Your task to perform on an android device: Open Reddit.com Image 0: 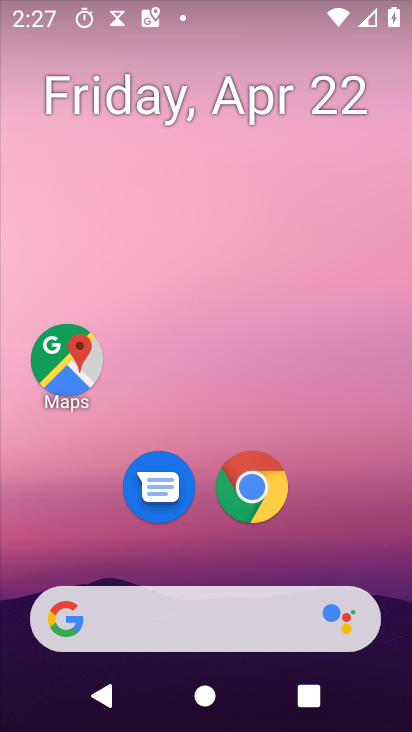
Step 0: drag from (130, 648) to (305, 109)
Your task to perform on an android device: Open Reddit.com Image 1: 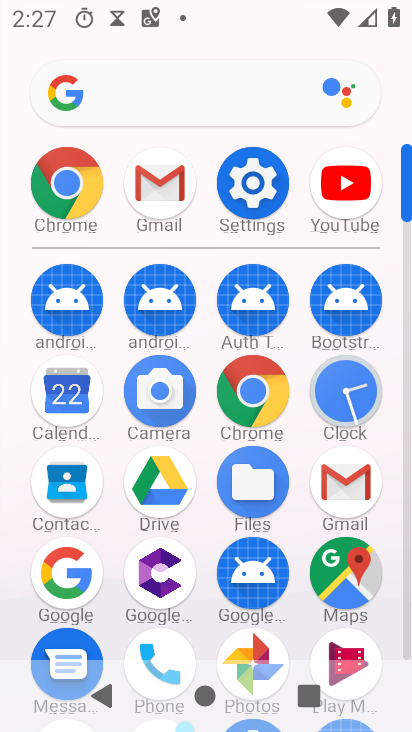
Step 1: click (73, 198)
Your task to perform on an android device: Open Reddit.com Image 2: 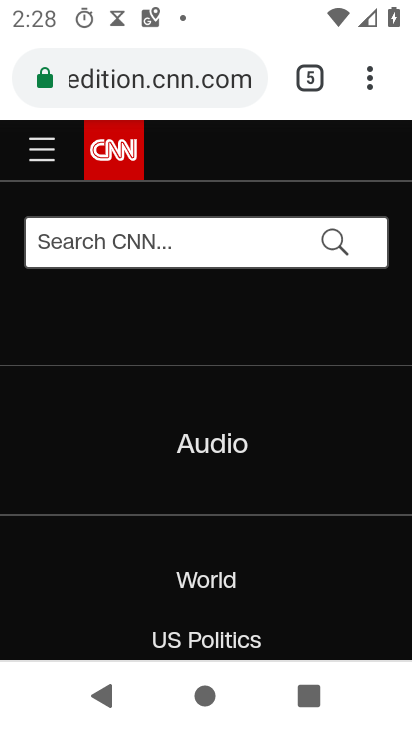
Step 2: drag from (371, 84) to (99, 151)
Your task to perform on an android device: Open Reddit.com Image 3: 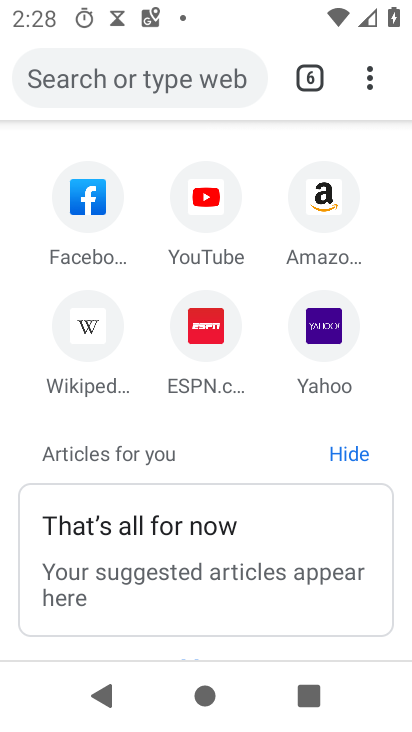
Step 3: click (144, 73)
Your task to perform on an android device: Open Reddit.com Image 4: 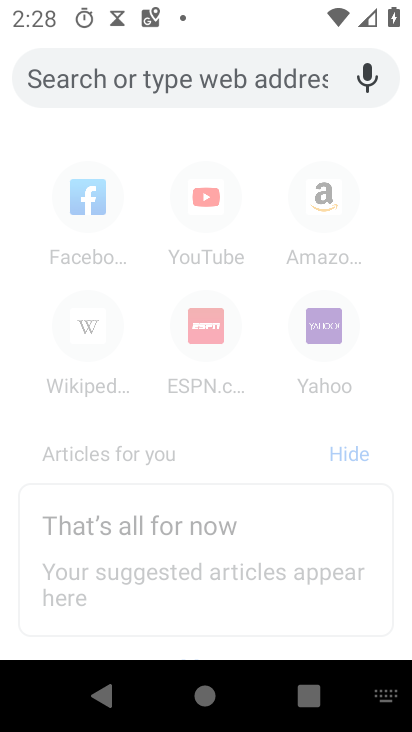
Step 4: type "reddit.com"
Your task to perform on an android device: Open Reddit.com Image 5: 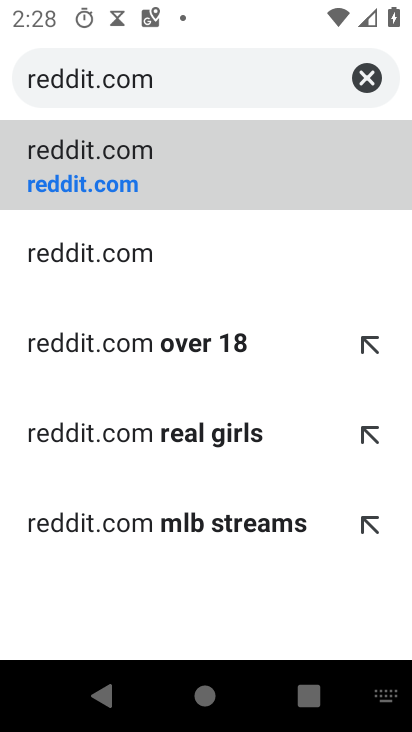
Step 5: click (105, 187)
Your task to perform on an android device: Open Reddit.com Image 6: 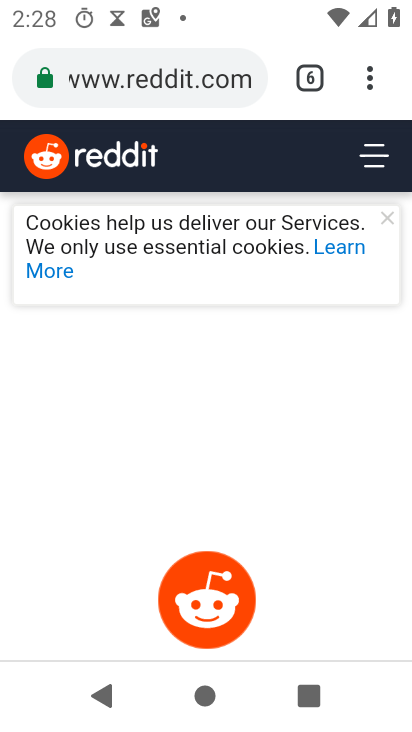
Step 6: task complete